Your task to perform on an android device: Go to accessibility settings Image 0: 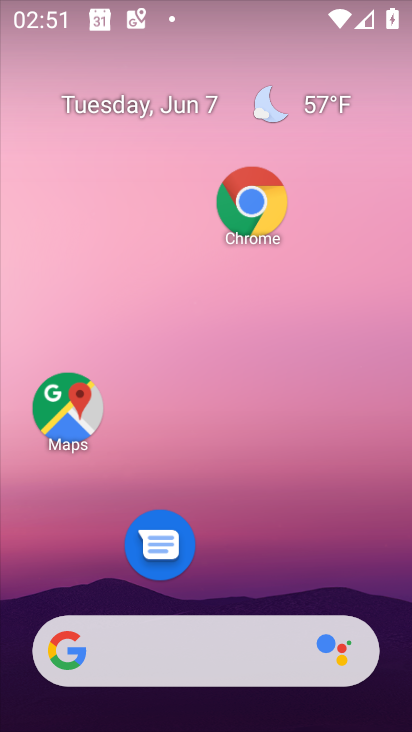
Step 0: drag from (286, 573) to (262, 264)
Your task to perform on an android device: Go to accessibility settings Image 1: 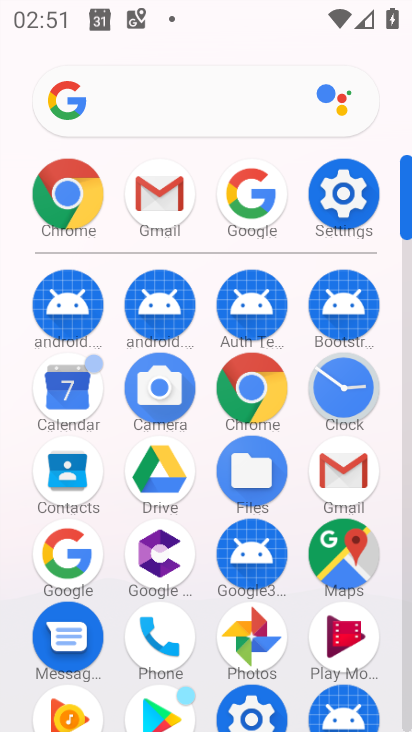
Step 1: click (324, 197)
Your task to perform on an android device: Go to accessibility settings Image 2: 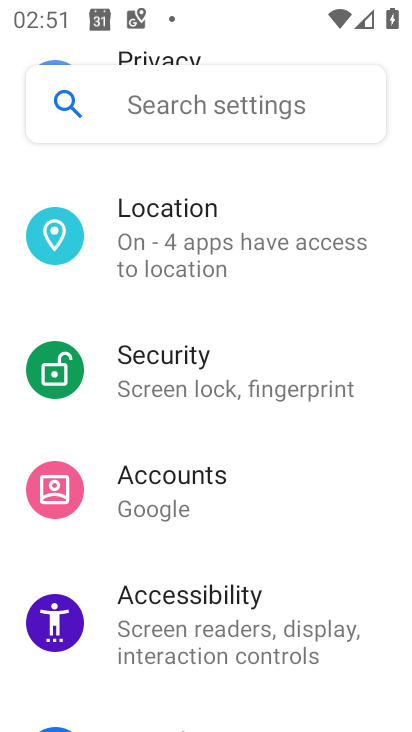
Step 2: click (186, 601)
Your task to perform on an android device: Go to accessibility settings Image 3: 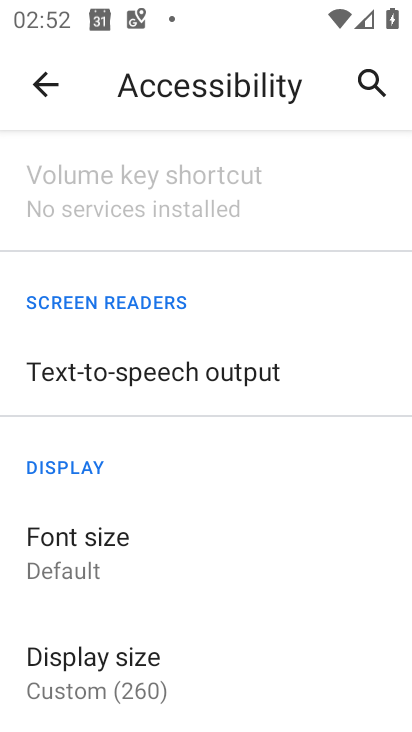
Step 3: task complete